Your task to perform on an android device: change notifications settings Image 0: 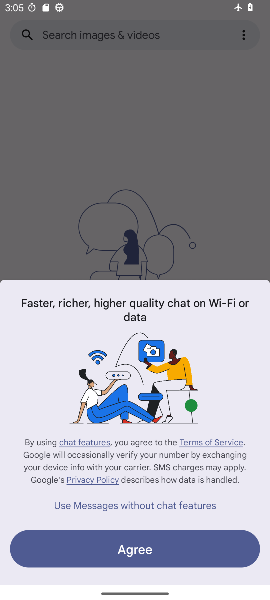
Step 0: press home button
Your task to perform on an android device: change notifications settings Image 1: 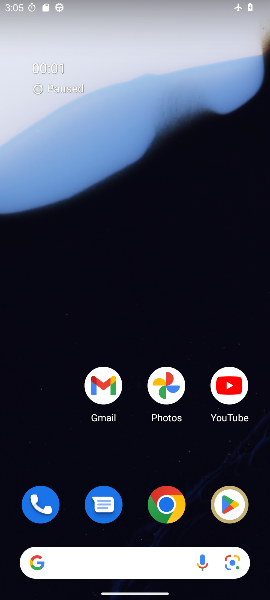
Step 1: drag from (42, 529) to (265, 7)
Your task to perform on an android device: change notifications settings Image 2: 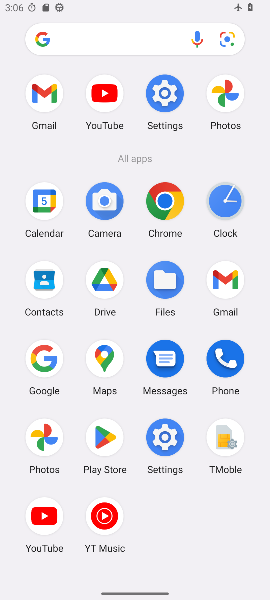
Step 2: click (158, 448)
Your task to perform on an android device: change notifications settings Image 3: 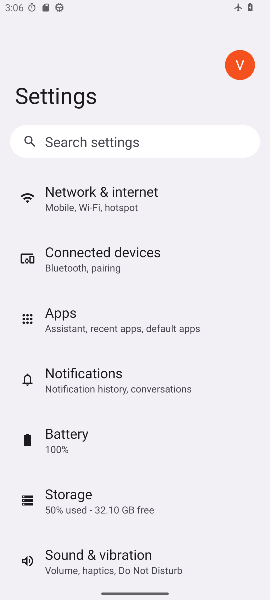
Step 3: click (98, 376)
Your task to perform on an android device: change notifications settings Image 4: 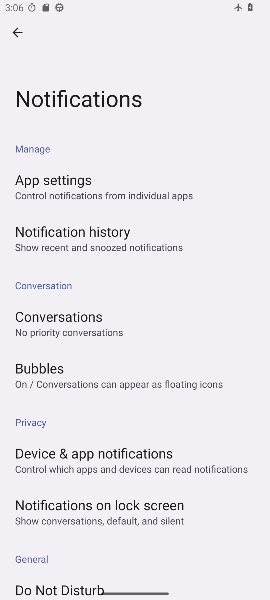
Step 4: click (75, 471)
Your task to perform on an android device: change notifications settings Image 5: 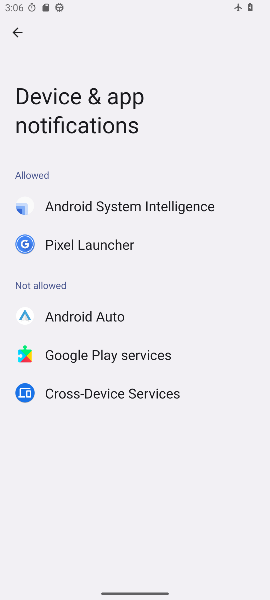
Step 5: task complete